Your task to perform on an android device: Open Amazon Image 0: 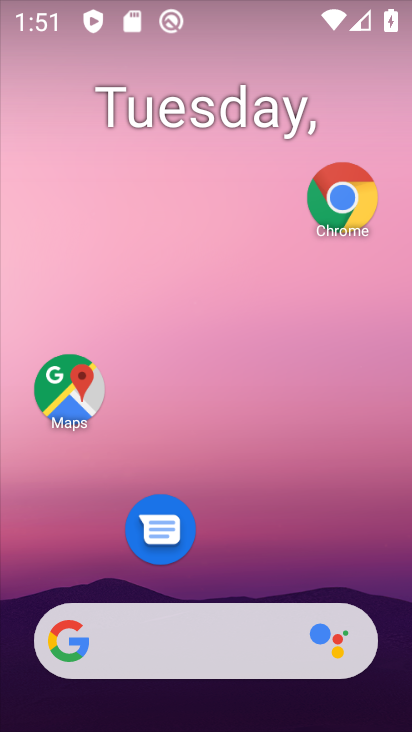
Step 0: click (329, 199)
Your task to perform on an android device: Open Amazon Image 1: 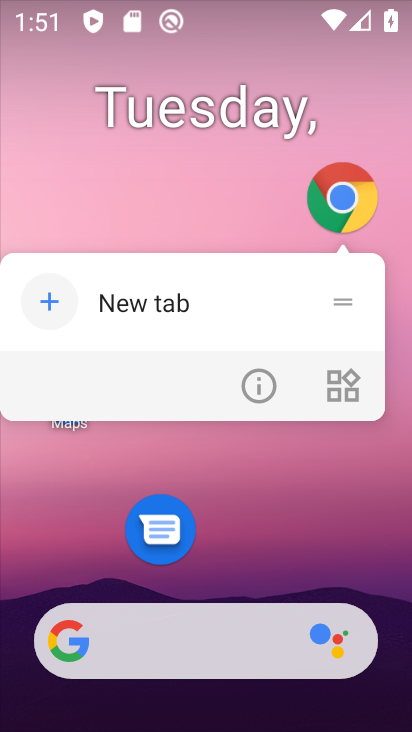
Step 1: click (354, 189)
Your task to perform on an android device: Open Amazon Image 2: 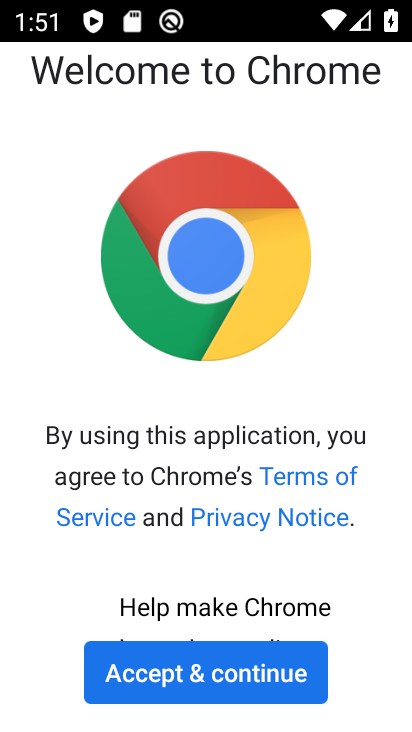
Step 2: click (219, 683)
Your task to perform on an android device: Open Amazon Image 3: 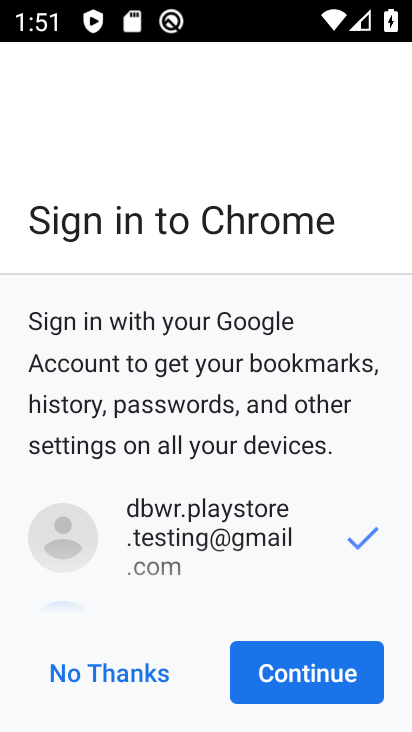
Step 3: click (360, 673)
Your task to perform on an android device: Open Amazon Image 4: 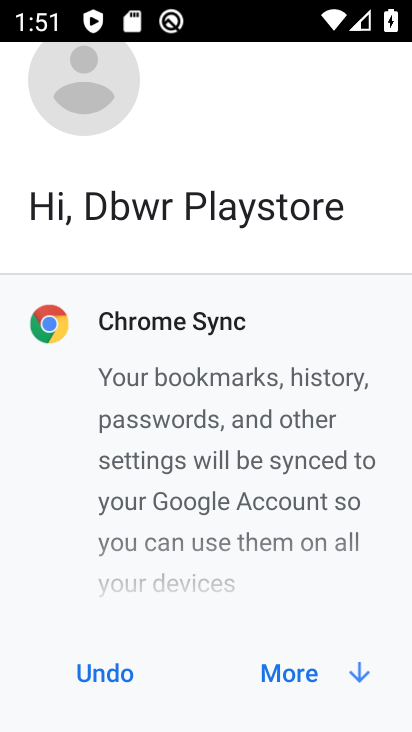
Step 4: click (294, 689)
Your task to perform on an android device: Open Amazon Image 5: 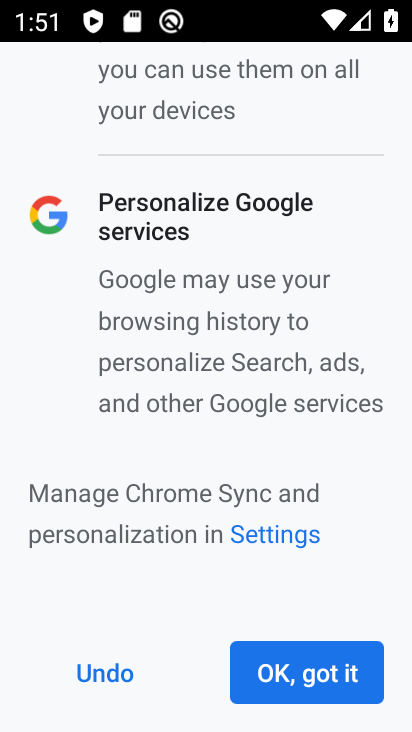
Step 5: click (298, 678)
Your task to perform on an android device: Open Amazon Image 6: 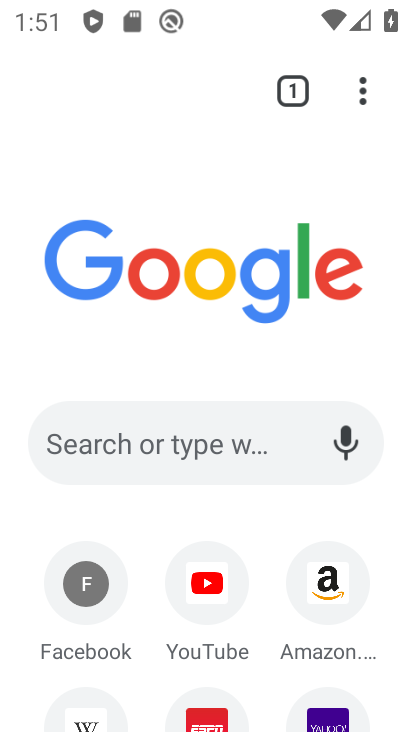
Step 6: click (332, 597)
Your task to perform on an android device: Open Amazon Image 7: 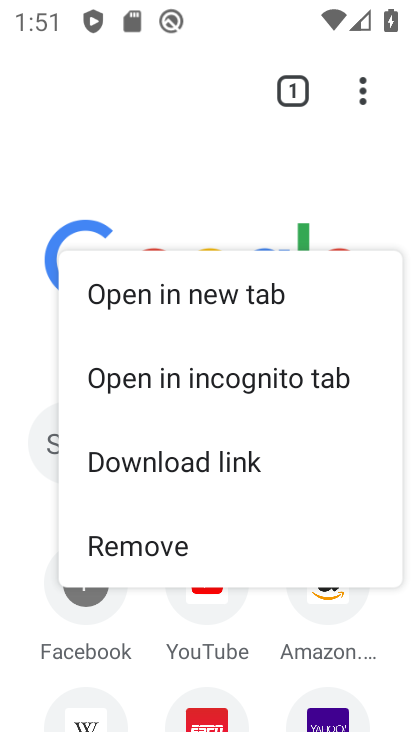
Step 7: click (324, 633)
Your task to perform on an android device: Open Amazon Image 8: 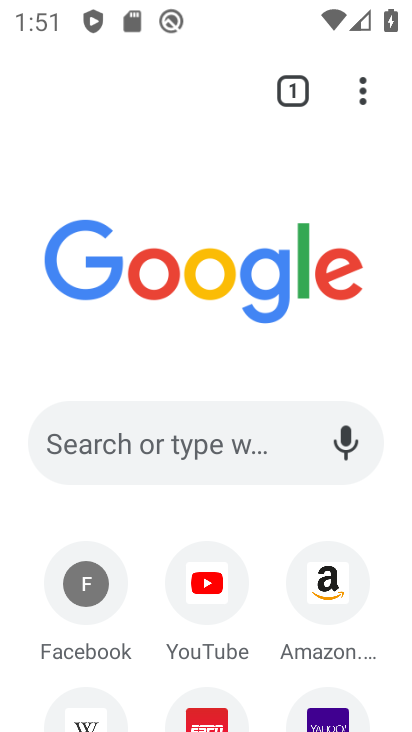
Step 8: click (321, 571)
Your task to perform on an android device: Open Amazon Image 9: 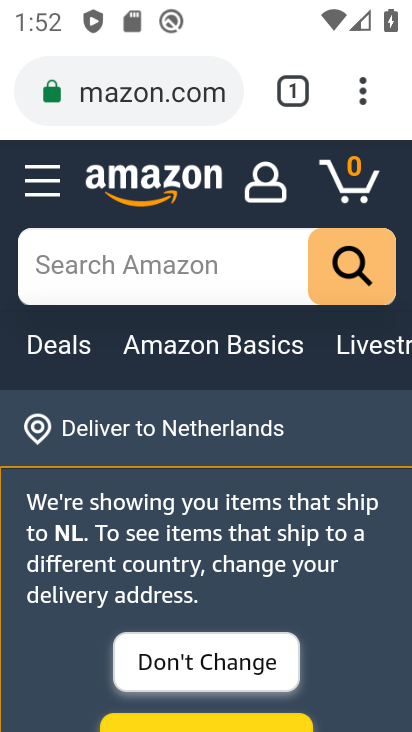
Step 9: task complete